Your task to perform on an android device: Go to wifi settings Image 0: 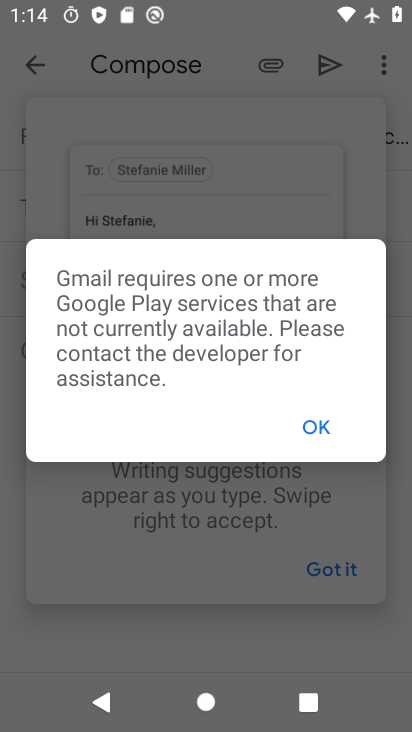
Step 0: press home button
Your task to perform on an android device: Go to wifi settings Image 1: 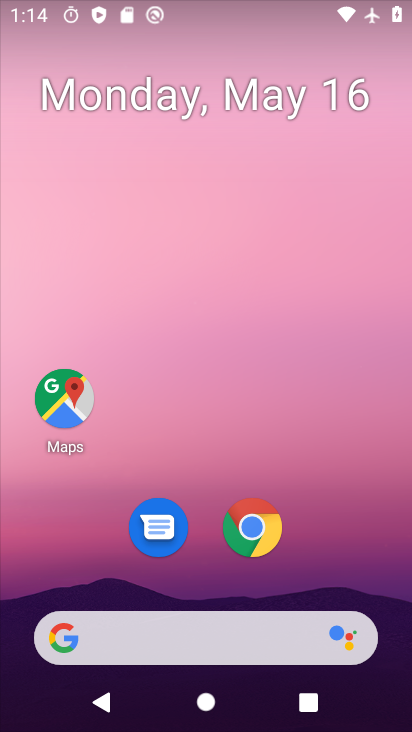
Step 1: drag from (177, 638) to (319, 164)
Your task to perform on an android device: Go to wifi settings Image 2: 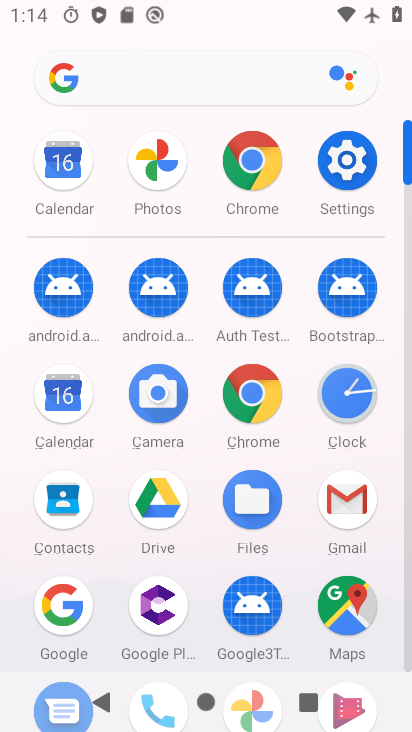
Step 2: click (345, 169)
Your task to perform on an android device: Go to wifi settings Image 3: 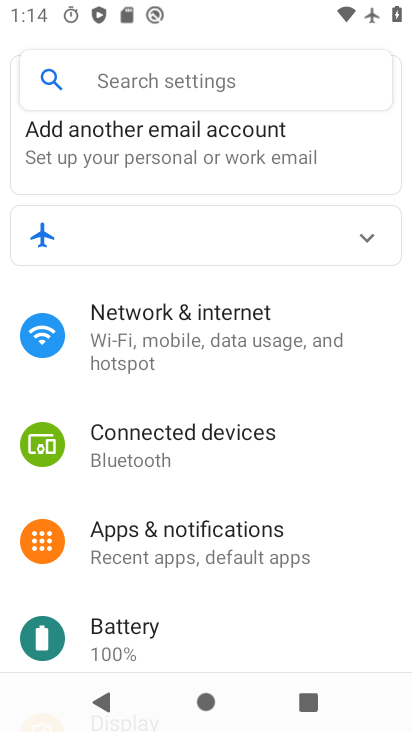
Step 3: click (191, 337)
Your task to perform on an android device: Go to wifi settings Image 4: 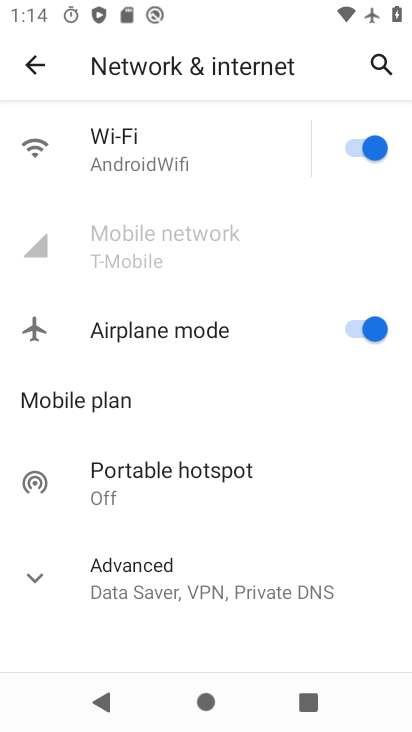
Step 4: click (152, 164)
Your task to perform on an android device: Go to wifi settings Image 5: 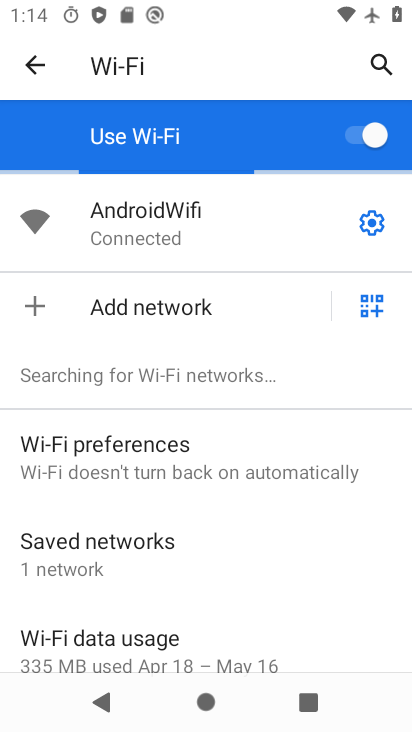
Step 5: task complete